Your task to perform on an android device: Open ESPN.com Image 0: 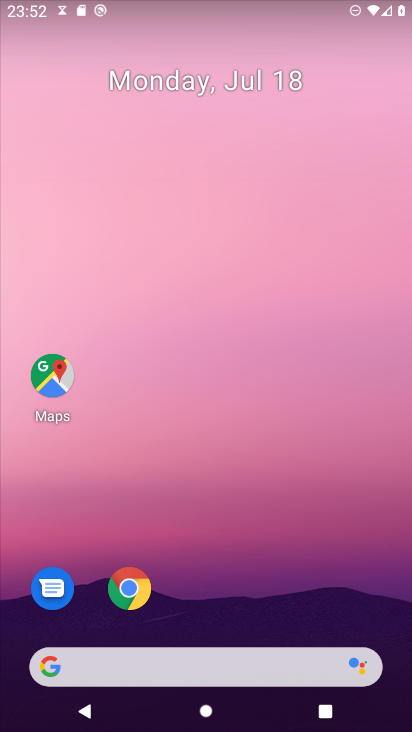
Step 0: press home button
Your task to perform on an android device: Open ESPN.com Image 1: 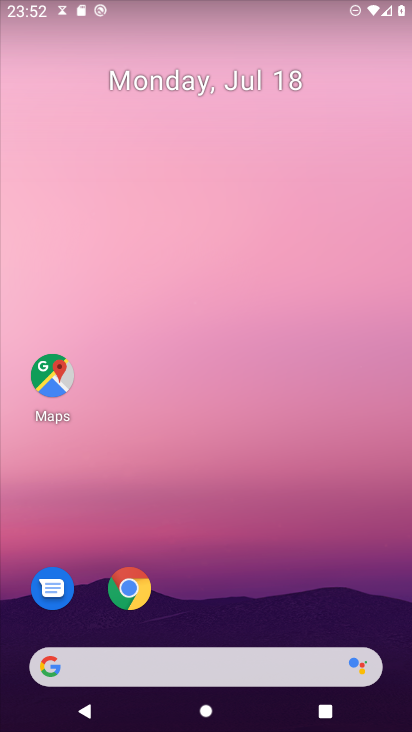
Step 1: click (47, 665)
Your task to perform on an android device: Open ESPN.com Image 2: 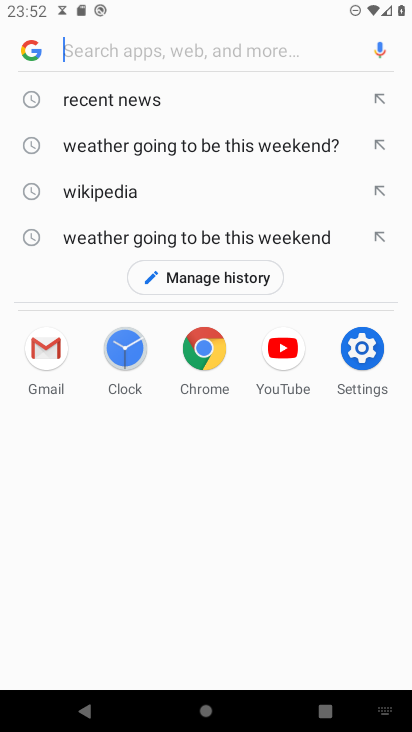
Step 2: type "ESPN.com"
Your task to perform on an android device: Open ESPN.com Image 3: 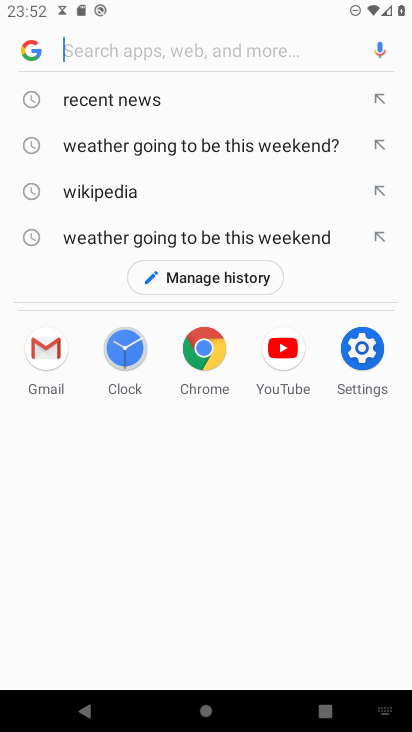
Step 3: click (122, 41)
Your task to perform on an android device: Open ESPN.com Image 4: 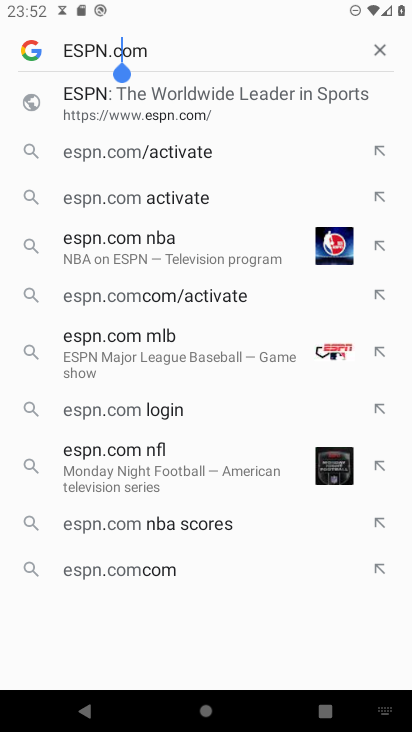
Step 4: press enter
Your task to perform on an android device: Open ESPN.com Image 5: 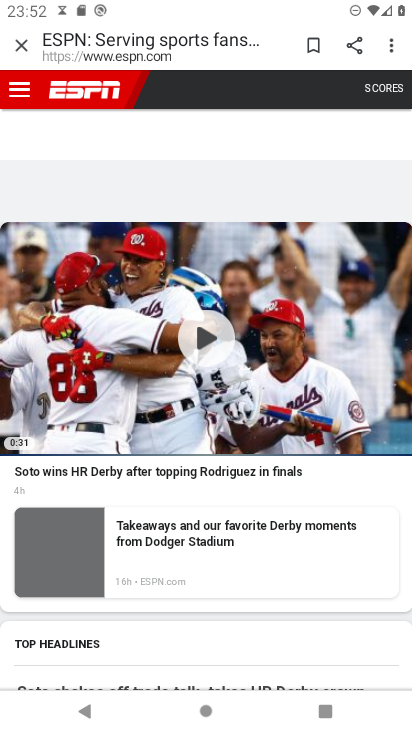
Step 5: task complete